Your task to perform on an android device: delete a single message in the gmail app Image 0: 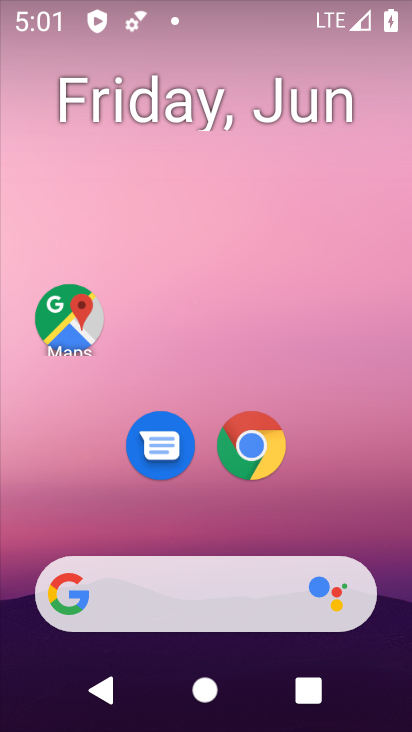
Step 0: drag from (389, 643) to (333, 50)
Your task to perform on an android device: delete a single message in the gmail app Image 1: 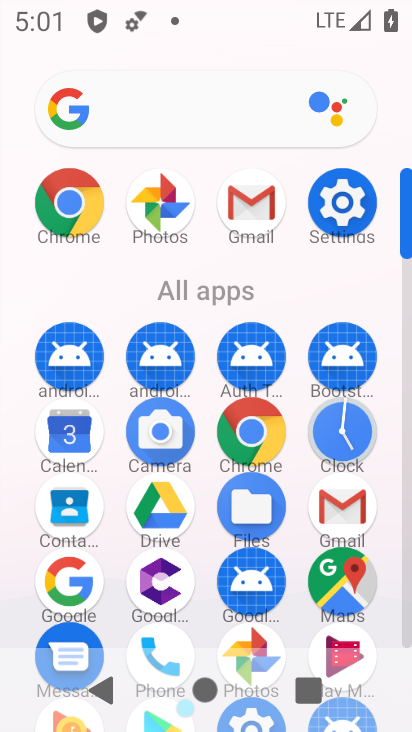
Step 1: drag from (13, 634) to (31, 265)
Your task to perform on an android device: delete a single message in the gmail app Image 2: 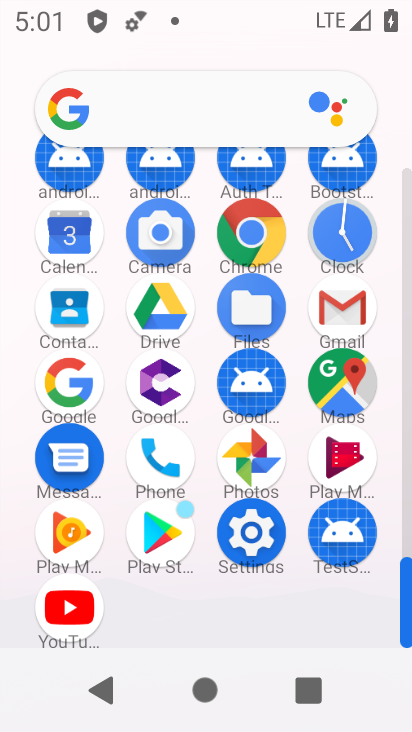
Step 2: click (346, 303)
Your task to perform on an android device: delete a single message in the gmail app Image 3: 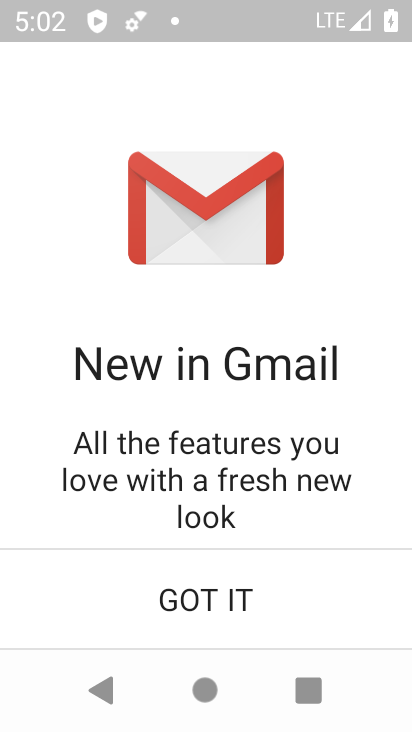
Step 3: click (231, 581)
Your task to perform on an android device: delete a single message in the gmail app Image 4: 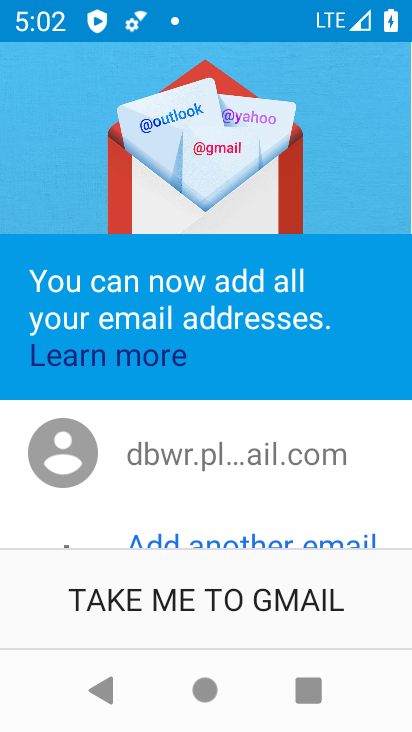
Step 4: click (188, 605)
Your task to perform on an android device: delete a single message in the gmail app Image 5: 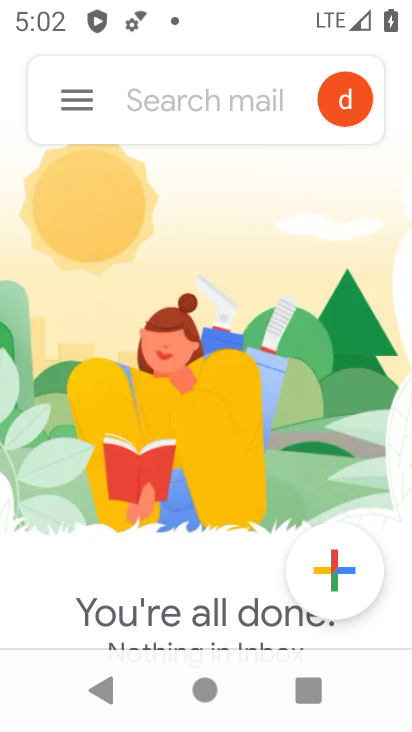
Step 5: click (73, 86)
Your task to perform on an android device: delete a single message in the gmail app Image 6: 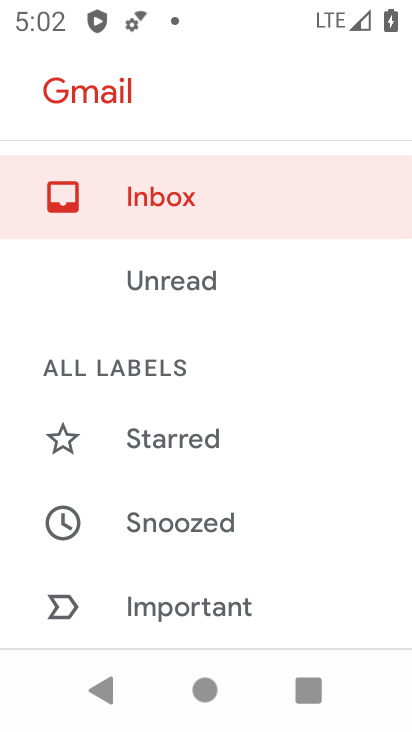
Step 6: drag from (217, 502) to (241, 140)
Your task to perform on an android device: delete a single message in the gmail app Image 7: 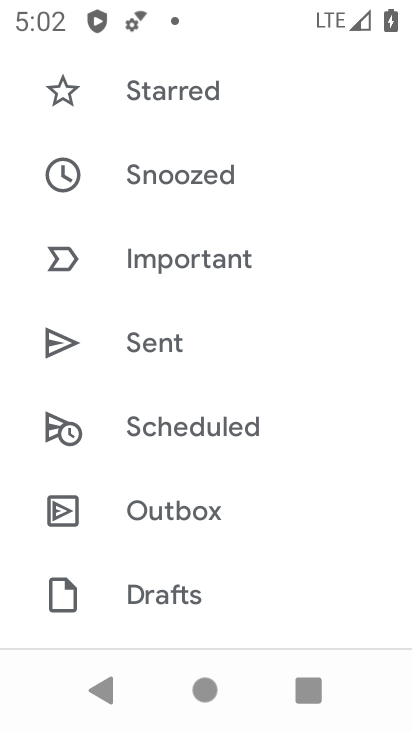
Step 7: drag from (243, 412) to (260, 202)
Your task to perform on an android device: delete a single message in the gmail app Image 8: 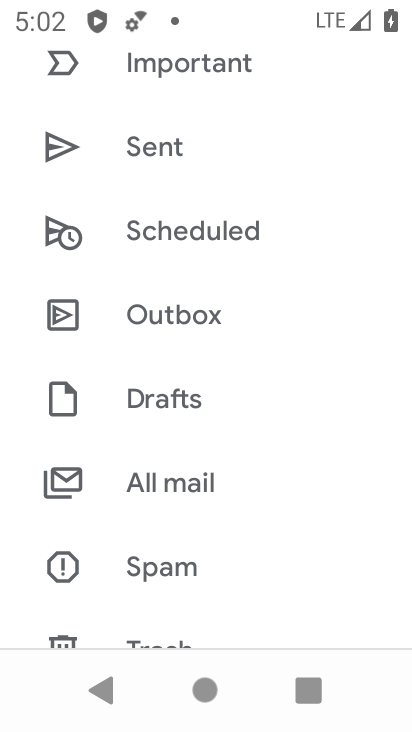
Step 8: click (168, 570)
Your task to perform on an android device: delete a single message in the gmail app Image 9: 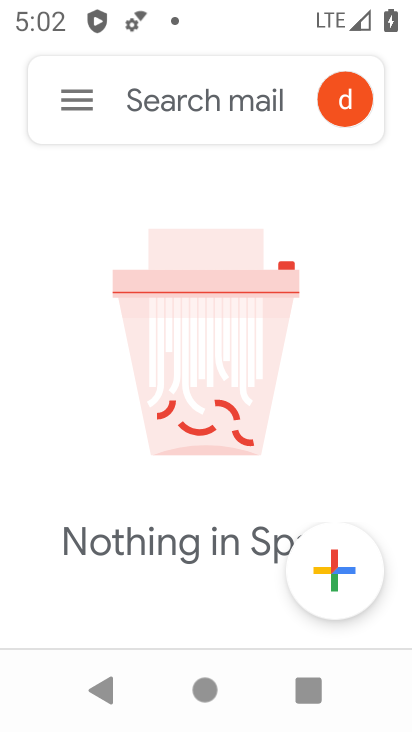
Step 9: click (84, 86)
Your task to perform on an android device: delete a single message in the gmail app Image 10: 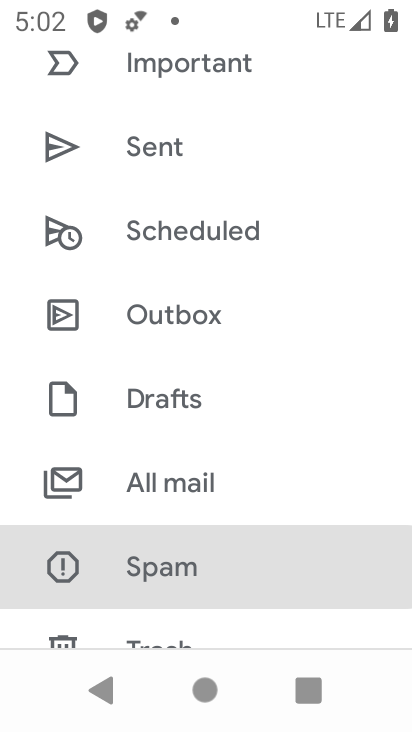
Step 10: drag from (232, 389) to (230, 116)
Your task to perform on an android device: delete a single message in the gmail app Image 11: 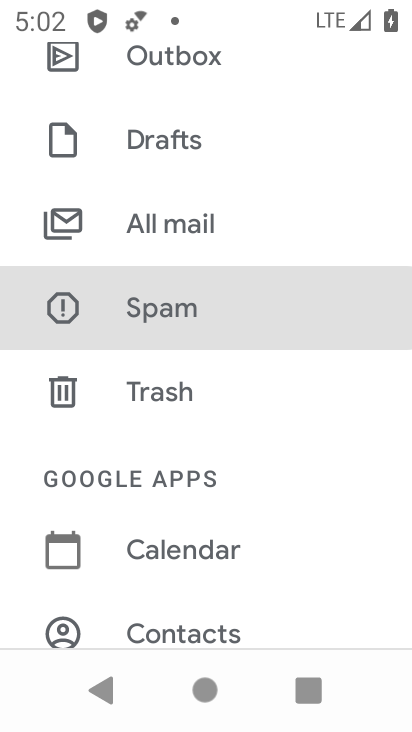
Step 11: click (175, 226)
Your task to perform on an android device: delete a single message in the gmail app Image 12: 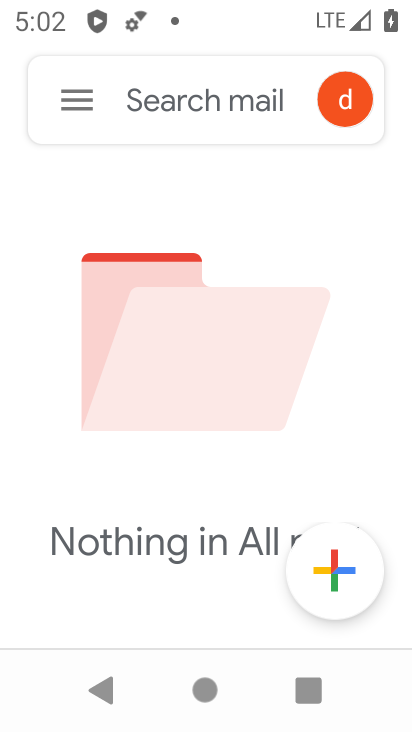
Step 12: task complete